Your task to perform on an android device: Open battery settings Image 0: 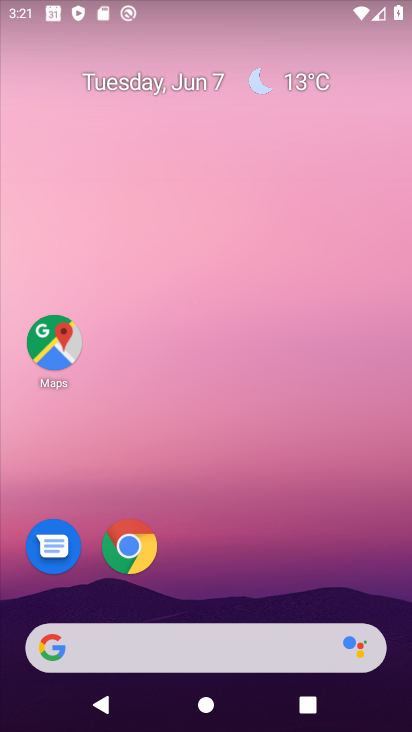
Step 0: drag from (226, 2) to (283, 531)
Your task to perform on an android device: Open battery settings Image 1: 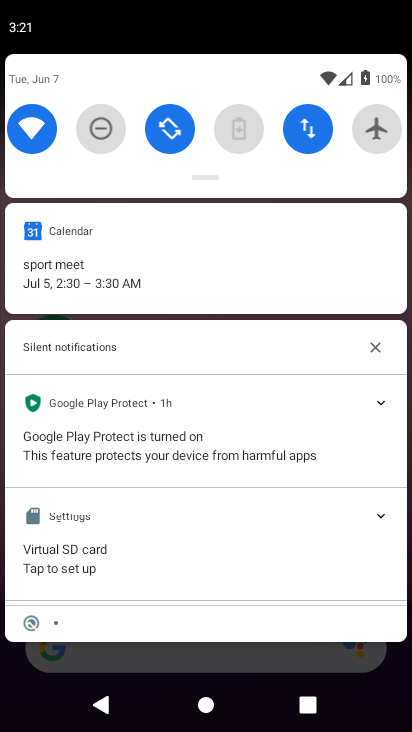
Step 1: click (250, 132)
Your task to perform on an android device: Open battery settings Image 2: 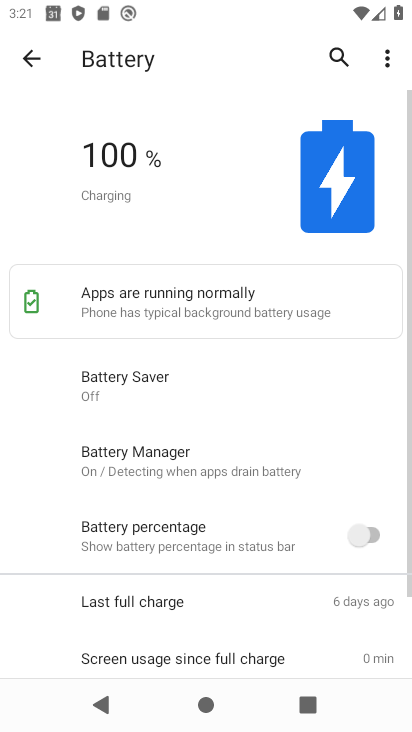
Step 2: task complete